Your task to perform on an android device: change timer sound Image 0: 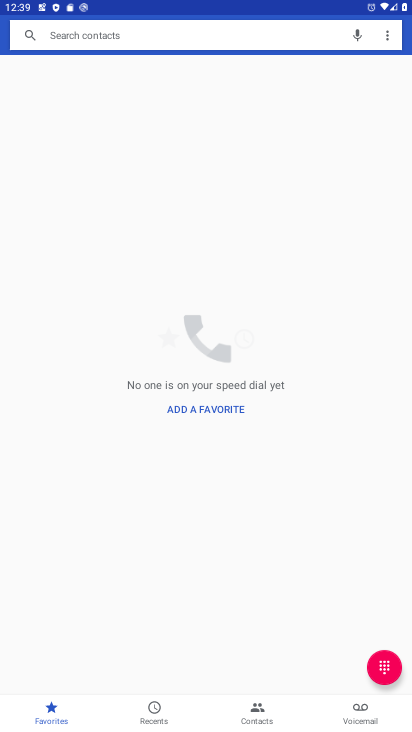
Step 0: press home button
Your task to perform on an android device: change timer sound Image 1: 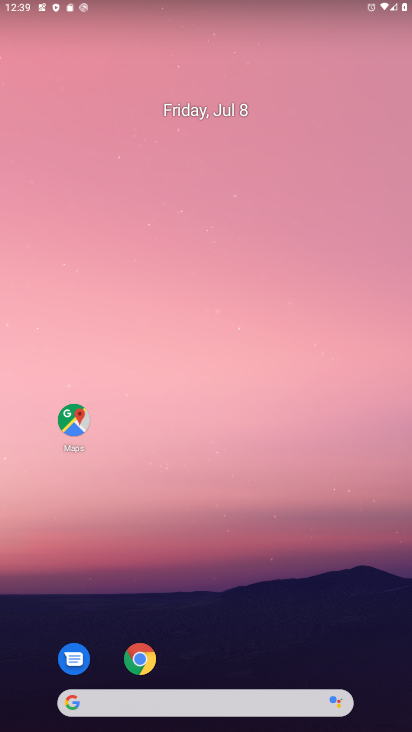
Step 1: drag from (231, 562) to (169, 157)
Your task to perform on an android device: change timer sound Image 2: 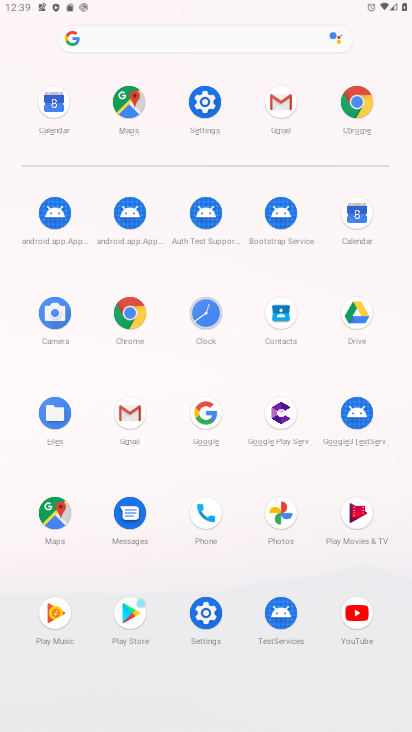
Step 2: click (200, 318)
Your task to perform on an android device: change timer sound Image 3: 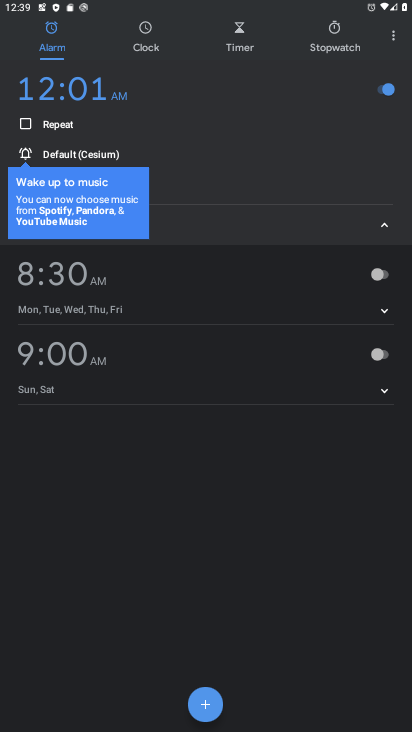
Step 3: click (394, 38)
Your task to perform on an android device: change timer sound Image 4: 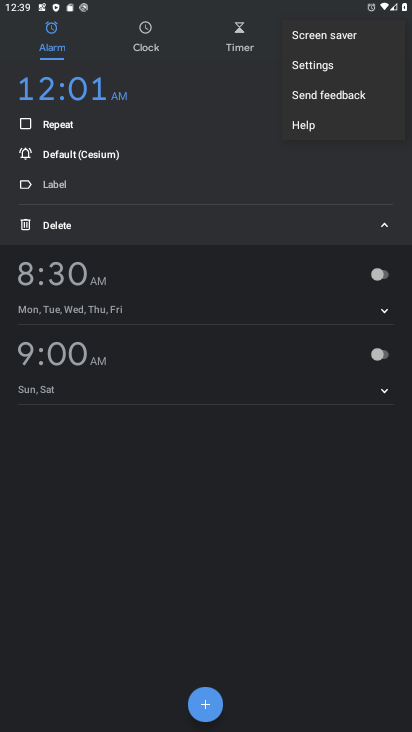
Step 4: click (315, 62)
Your task to perform on an android device: change timer sound Image 5: 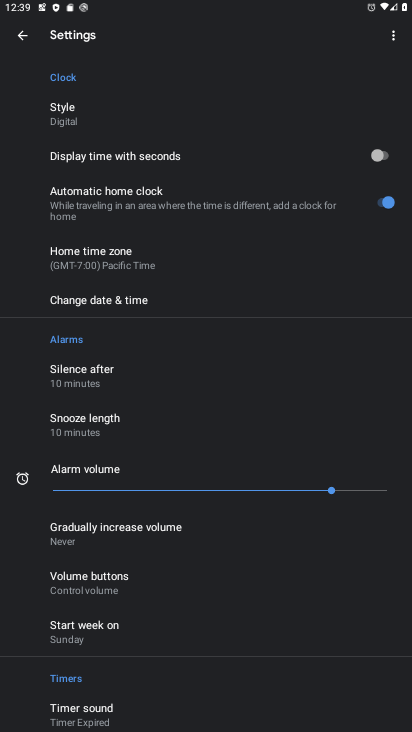
Step 5: click (77, 711)
Your task to perform on an android device: change timer sound Image 6: 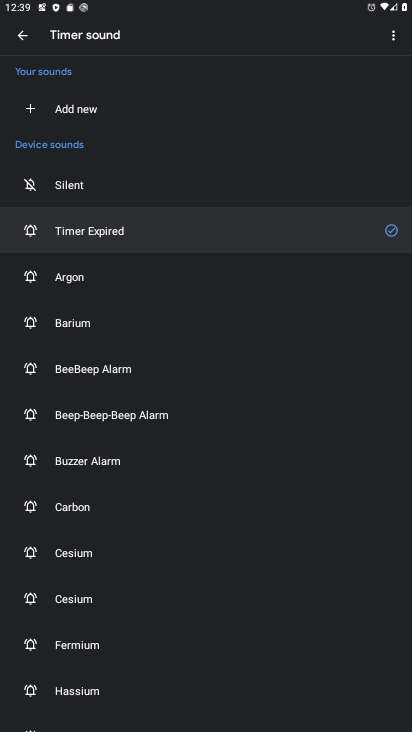
Step 6: click (72, 321)
Your task to perform on an android device: change timer sound Image 7: 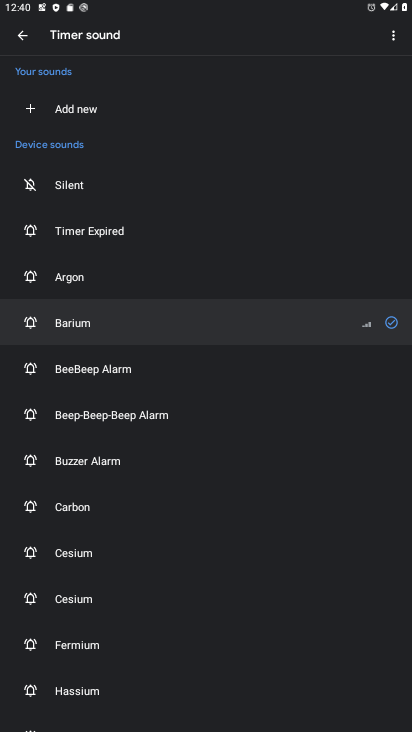
Step 7: task complete